Your task to perform on an android device: Open display settings Image 0: 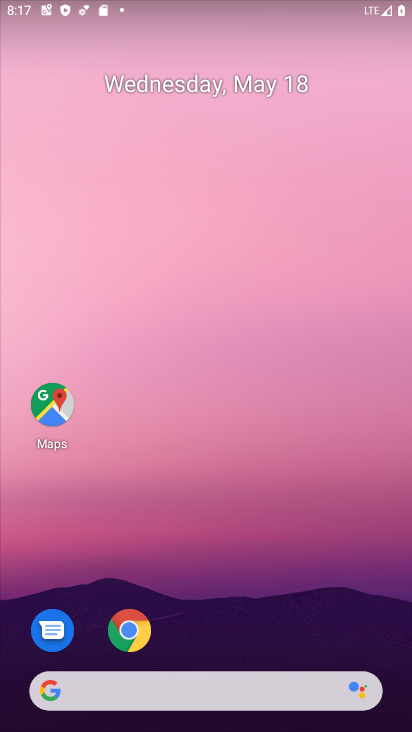
Step 0: press home button
Your task to perform on an android device: Open display settings Image 1: 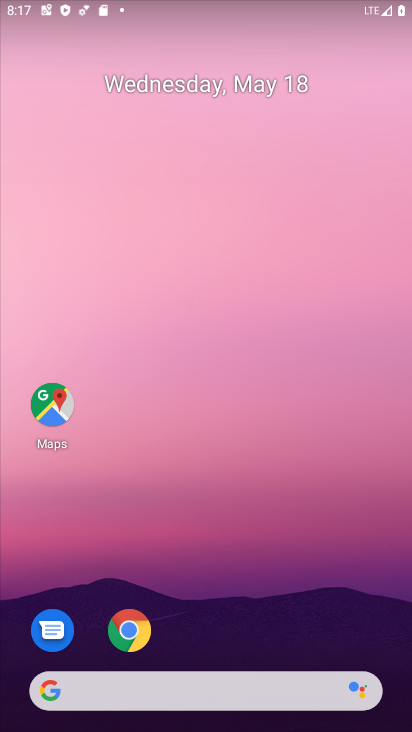
Step 1: drag from (140, 689) to (293, 78)
Your task to perform on an android device: Open display settings Image 2: 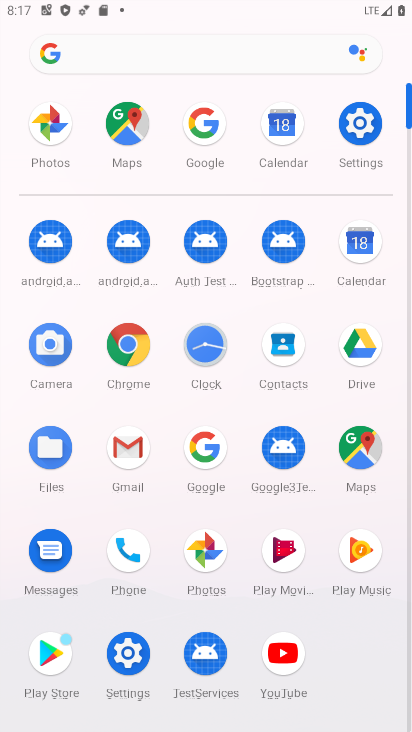
Step 2: click (363, 122)
Your task to perform on an android device: Open display settings Image 3: 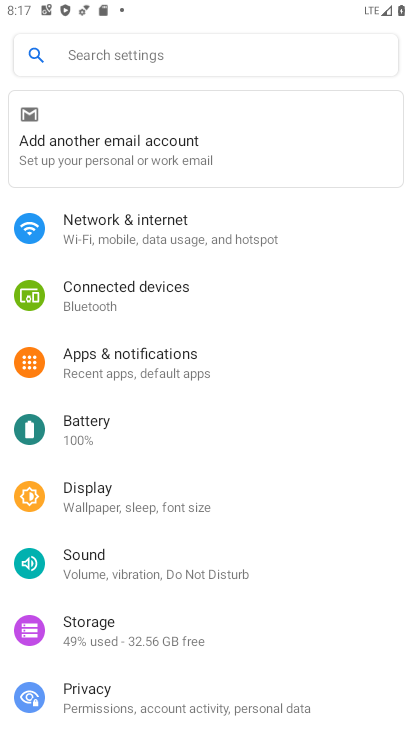
Step 3: click (85, 492)
Your task to perform on an android device: Open display settings Image 4: 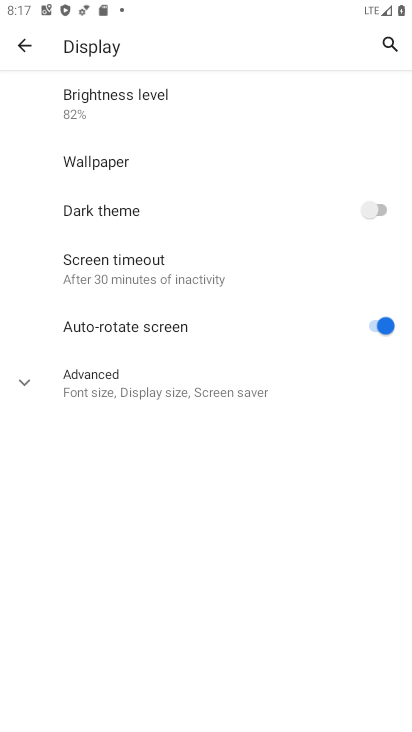
Step 4: task complete